Your task to perform on an android device: open the mobile data screen to see how much data has been used Image 0: 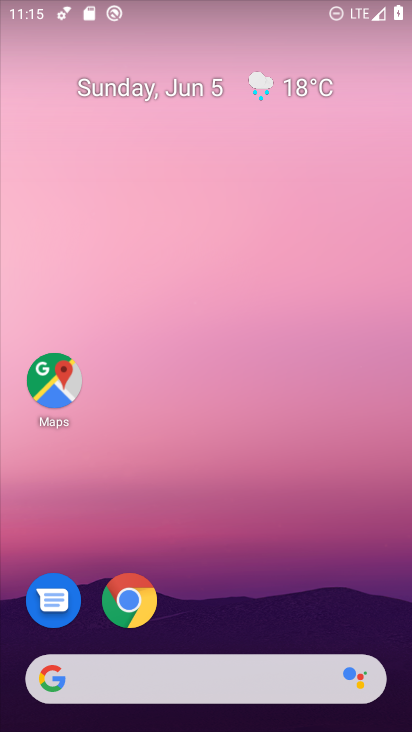
Step 0: drag from (215, 599) to (215, 269)
Your task to perform on an android device: open the mobile data screen to see how much data has been used Image 1: 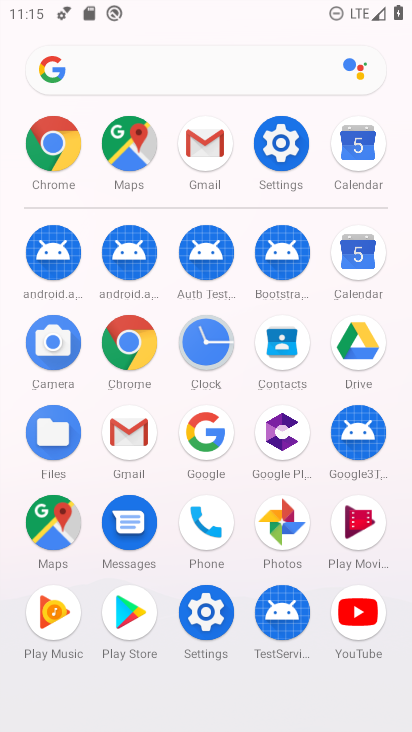
Step 1: click (276, 127)
Your task to perform on an android device: open the mobile data screen to see how much data has been used Image 2: 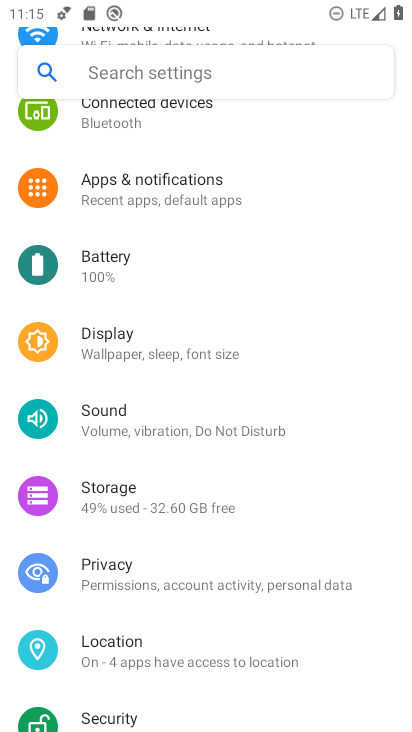
Step 2: drag from (242, 197) to (255, 504)
Your task to perform on an android device: open the mobile data screen to see how much data has been used Image 3: 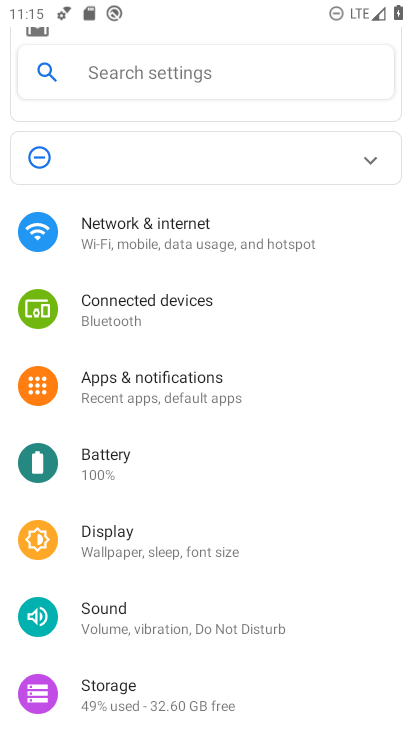
Step 3: click (197, 253)
Your task to perform on an android device: open the mobile data screen to see how much data has been used Image 4: 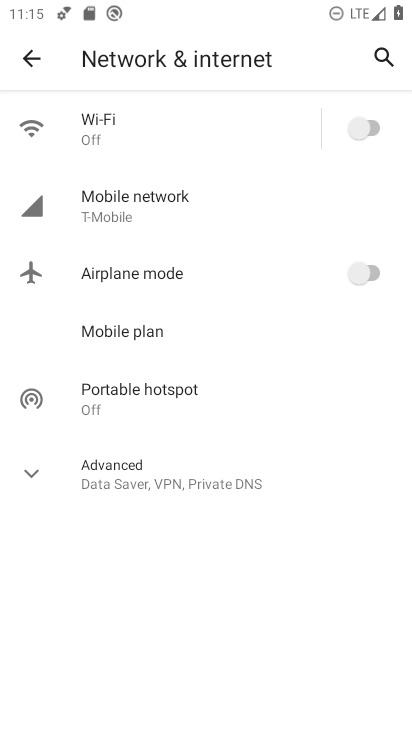
Step 4: click (183, 204)
Your task to perform on an android device: open the mobile data screen to see how much data has been used Image 5: 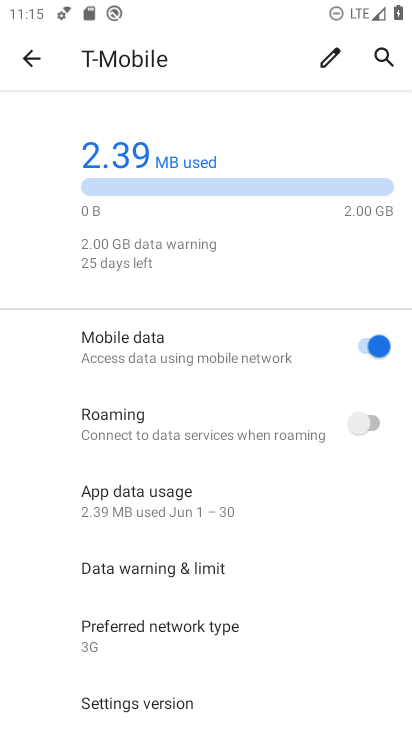
Step 5: task complete